Your task to perform on an android device: turn smart compose on in the gmail app Image 0: 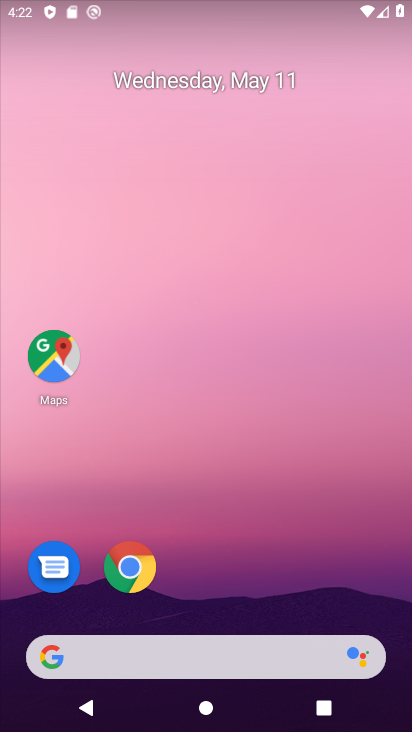
Step 0: drag from (186, 587) to (190, 240)
Your task to perform on an android device: turn smart compose on in the gmail app Image 1: 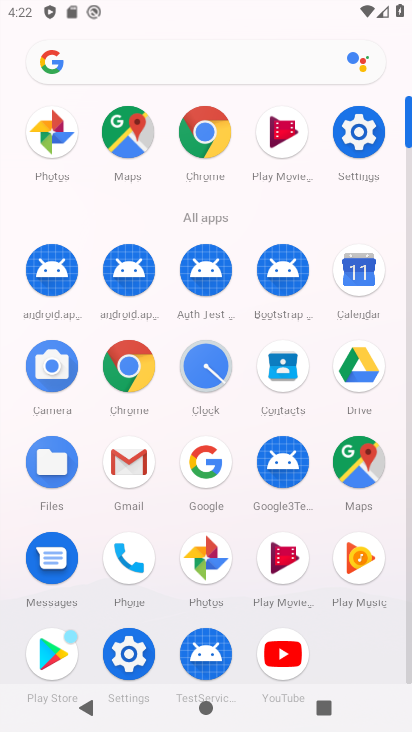
Step 1: click (126, 484)
Your task to perform on an android device: turn smart compose on in the gmail app Image 2: 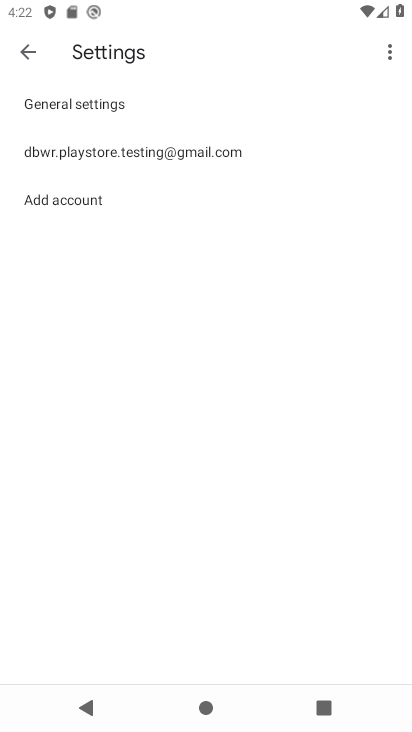
Step 2: click (140, 158)
Your task to perform on an android device: turn smart compose on in the gmail app Image 3: 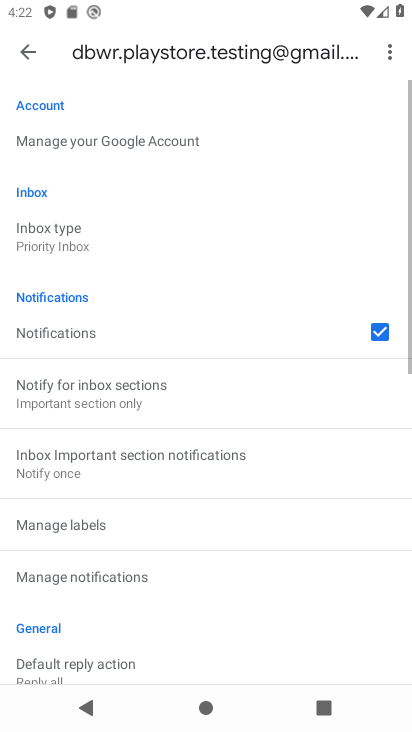
Step 3: task complete